Your task to perform on an android device: set an alarm Image 0: 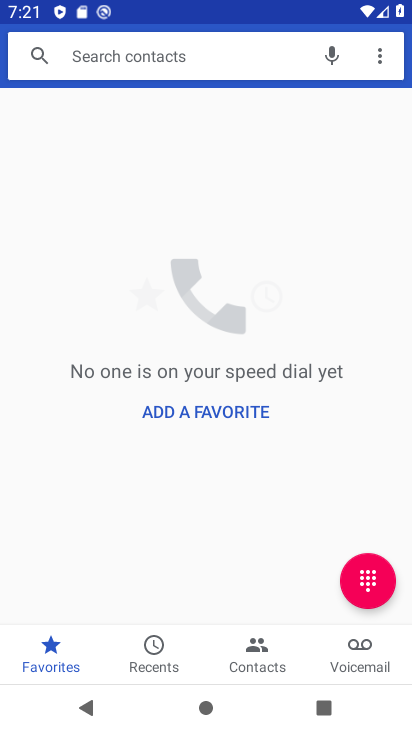
Step 0: press home button
Your task to perform on an android device: set an alarm Image 1: 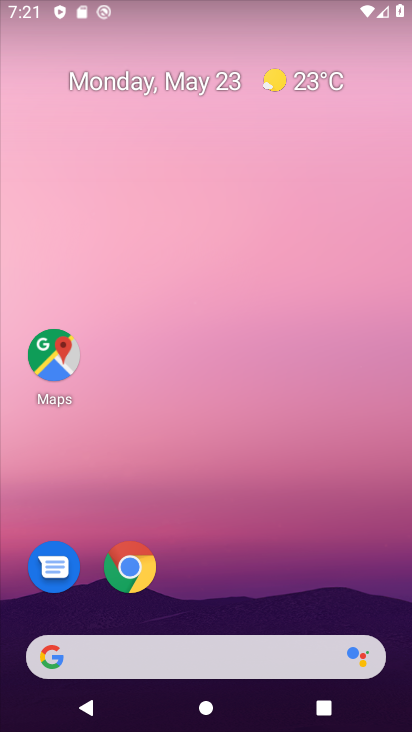
Step 1: drag from (219, 629) to (275, 271)
Your task to perform on an android device: set an alarm Image 2: 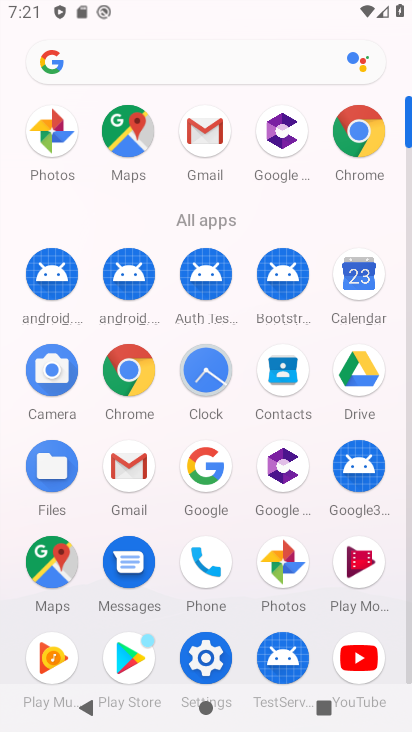
Step 2: click (216, 365)
Your task to perform on an android device: set an alarm Image 3: 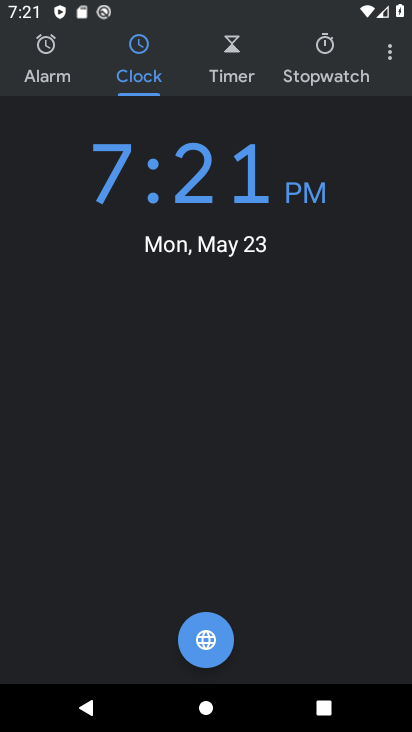
Step 3: click (45, 43)
Your task to perform on an android device: set an alarm Image 4: 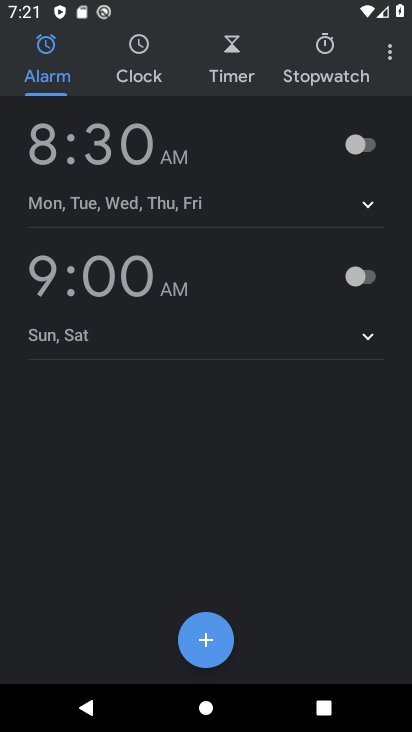
Step 4: click (358, 149)
Your task to perform on an android device: set an alarm Image 5: 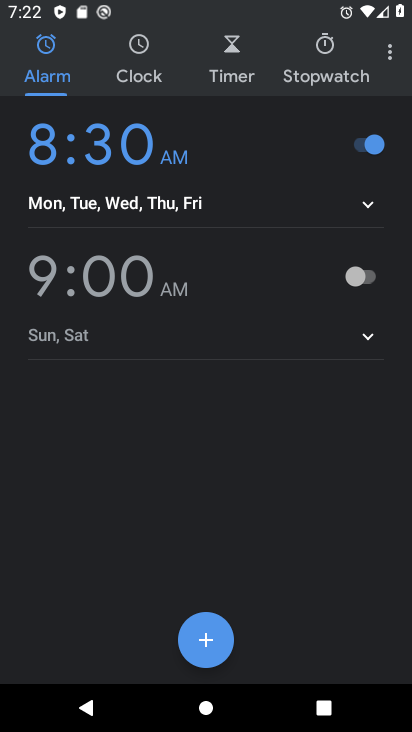
Step 5: task complete